Your task to perform on an android device: Open Wikipedia Image 0: 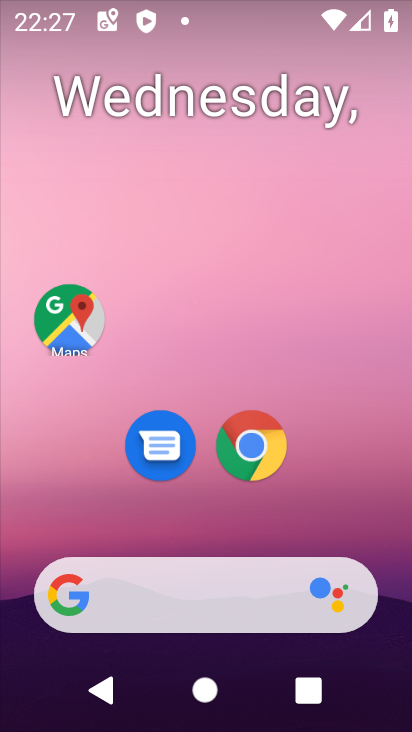
Step 0: click (268, 438)
Your task to perform on an android device: Open Wikipedia Image 1: 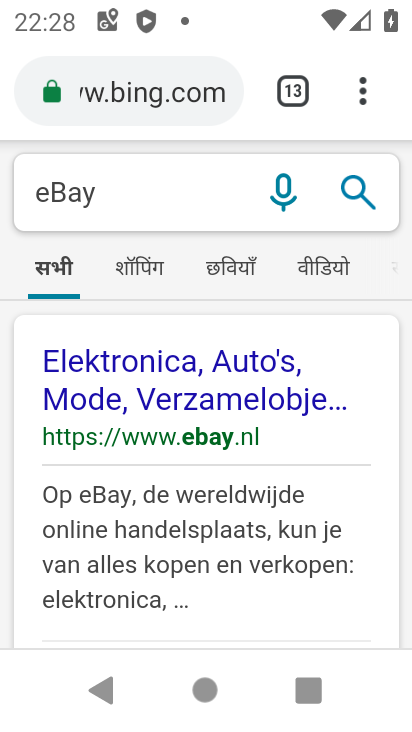
Step 1: click (358, 96)
Your task to perform on an android device: Open Wikipedia Image 2: 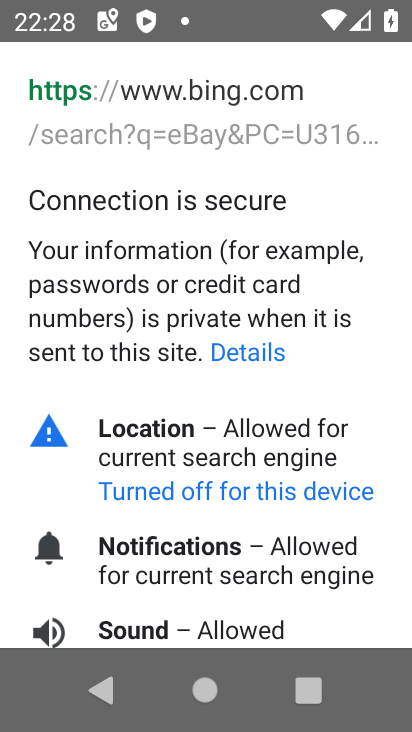
Step 2: press back button
Your task to perform on an android device: Open Wikipedia Image 3: 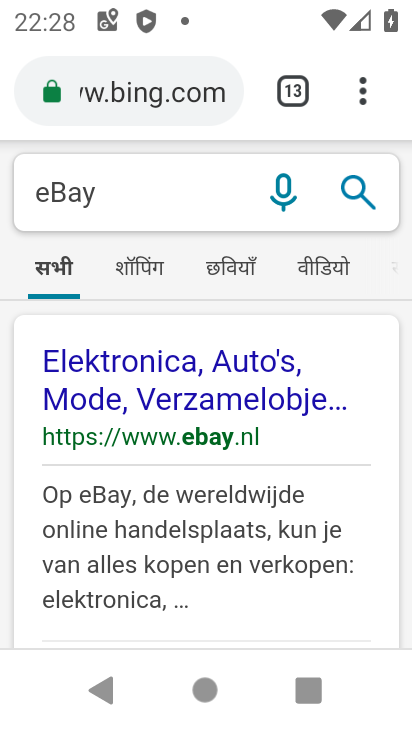
Step 3: click (375, 86)
Your task to perform on an android device: Open Wikipedia Image 4: 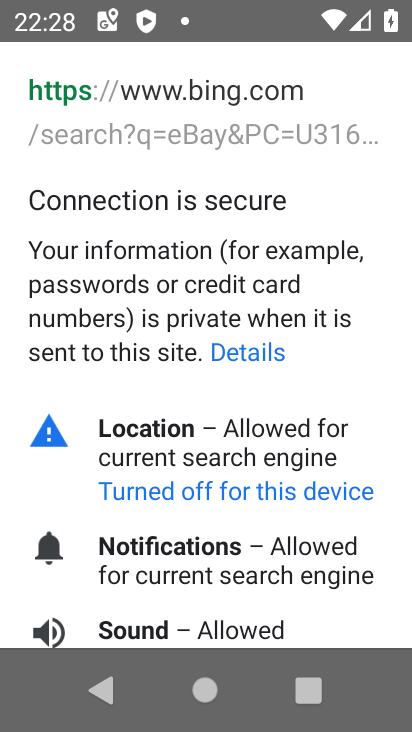
Step 4: press back button
Your task to perform on an android device: Open Wikipedia Image 5: 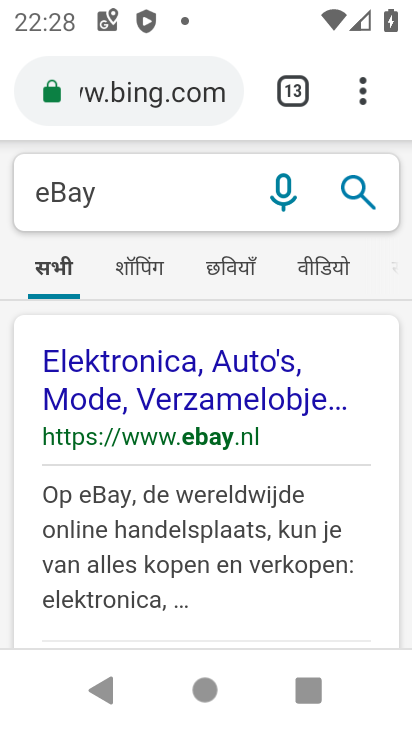
Step 5: click (381, 81)
Your task to perform on an android device: Open Wikipedia Image 6: 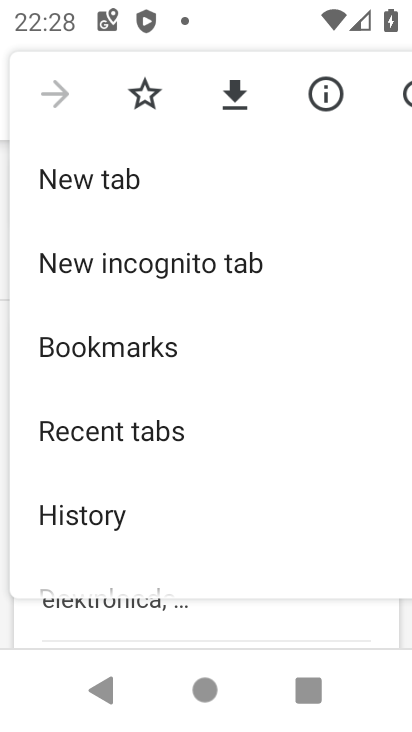
Step 6: click (145, 178)
Your task to perform on an android device: Open Wikipedia Image 7: 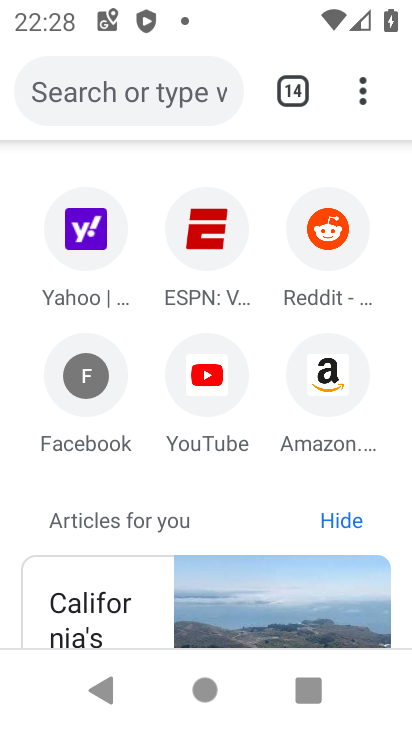
Step 7: click (121, 90)
Your task to perform on an android device: Open Wikipedia Image 8: 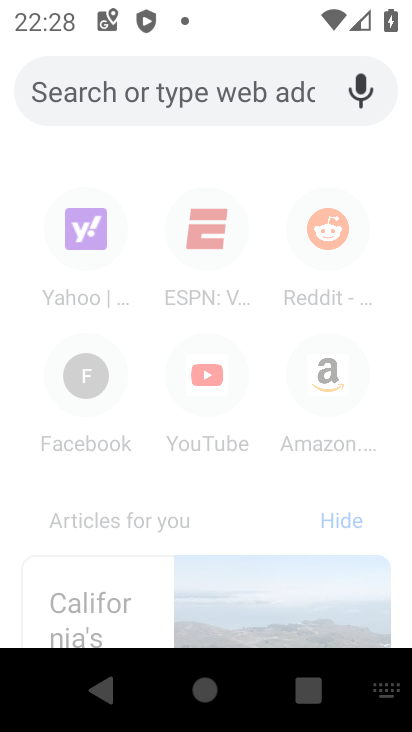
Step 8: type " Wikipedia"
Your task to perform on an android device: Open Wikipedia Image 9: 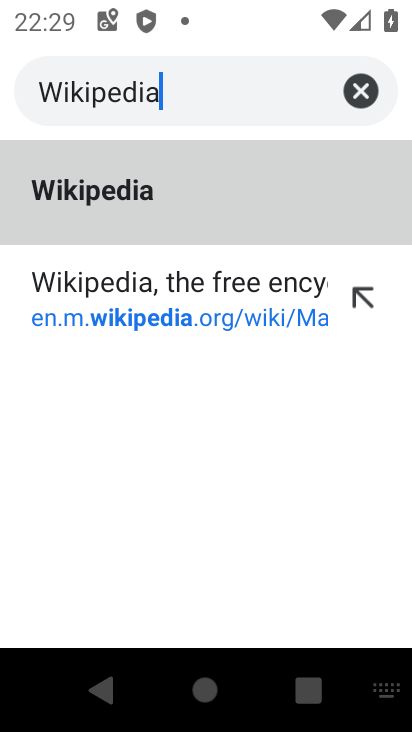
Step 9: click (210, 132)
Your task to perform on an android device: Open Wikipedia Image 10: 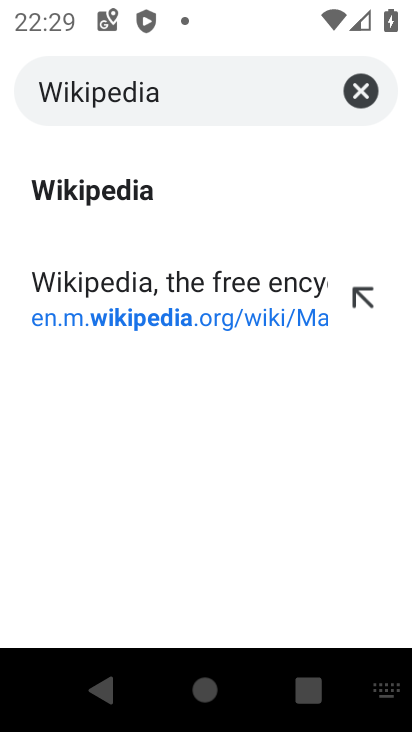
Step 10: click (259, 185)
Your task to perform on an android device: Open Wikipedia Image 11: 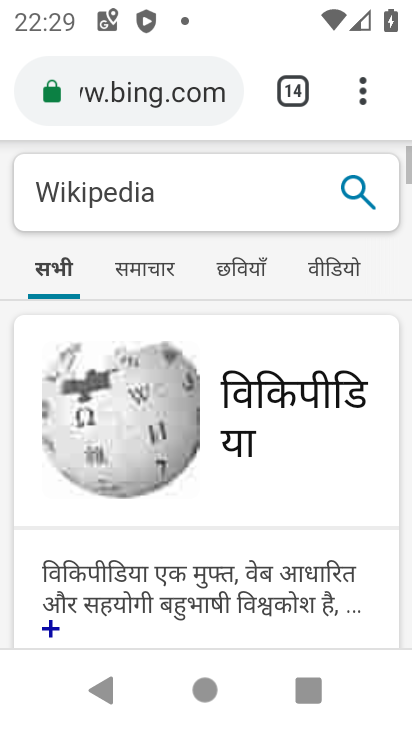
Step 11: task complete